Your task to perform on an android device: Turn on the flashlight Image 0: 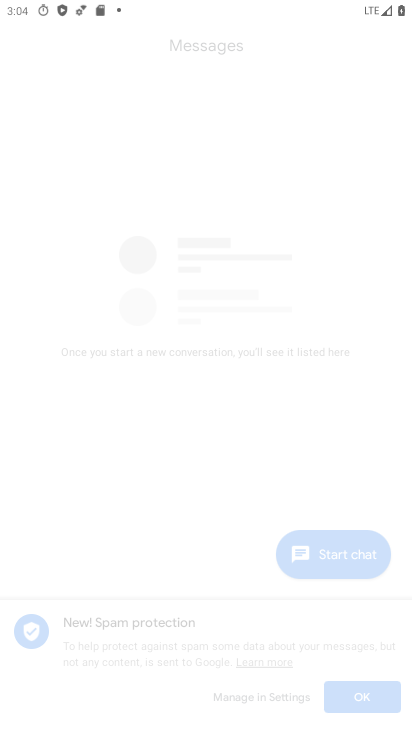
Step 0: drag from (245, 594) to (242, 46)
Your task to perform on an android device: Turn on the flashlight Image 1: 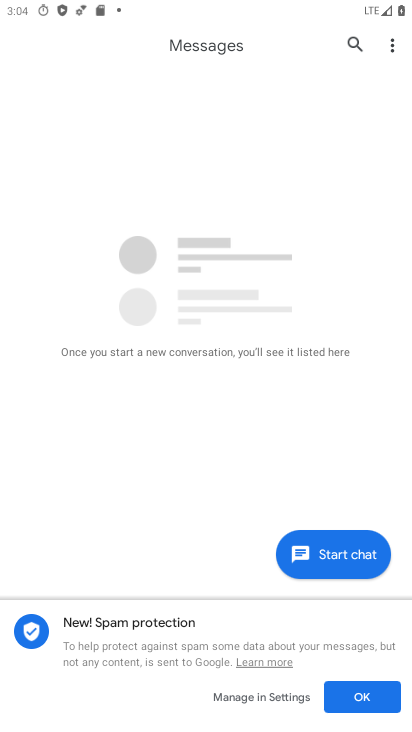
Step 1: task complete